Your task to perform on an android device: What is the recent news? Image 0: 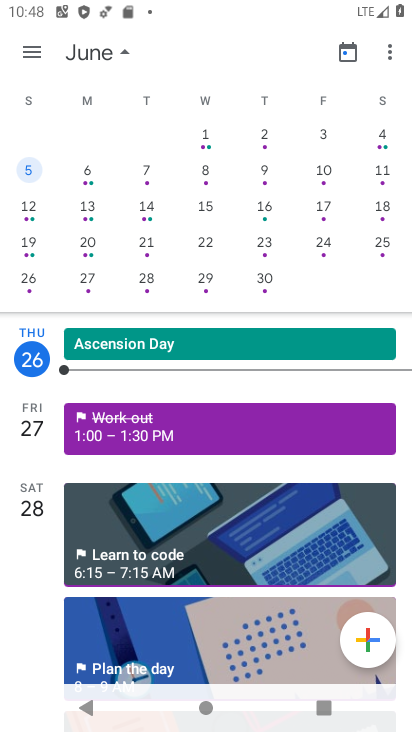
Step 0: press home button
Your task to perform on an android device: What is the recent news? Image 1: 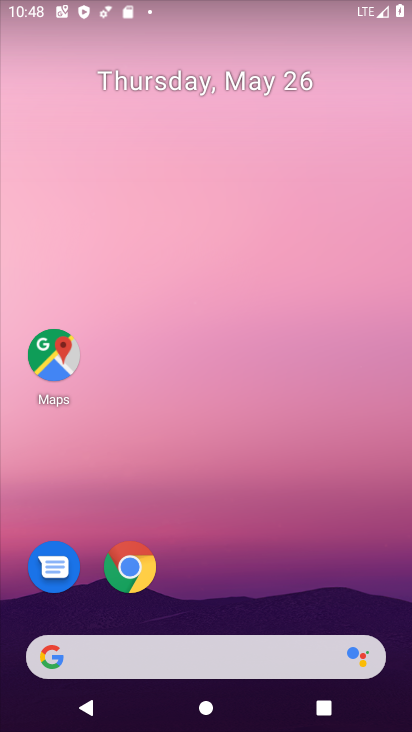
Step 1: click (204, 646)
Your task to perform on an android device: What is the recent news? Image 2: 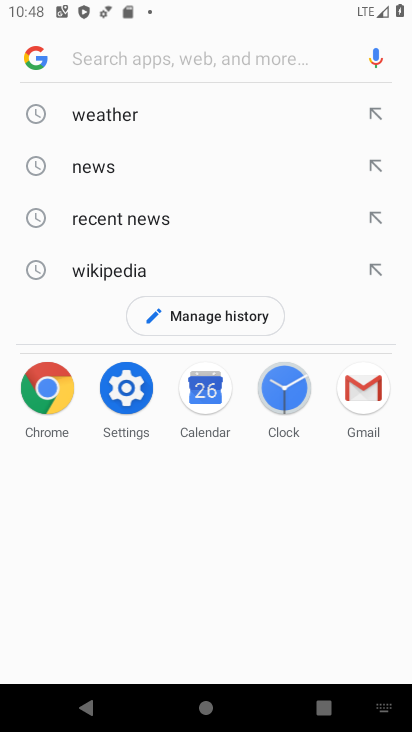
Step 2: click (170, 213)
Your task to perform on an android device: What is the recent news? Image 3: 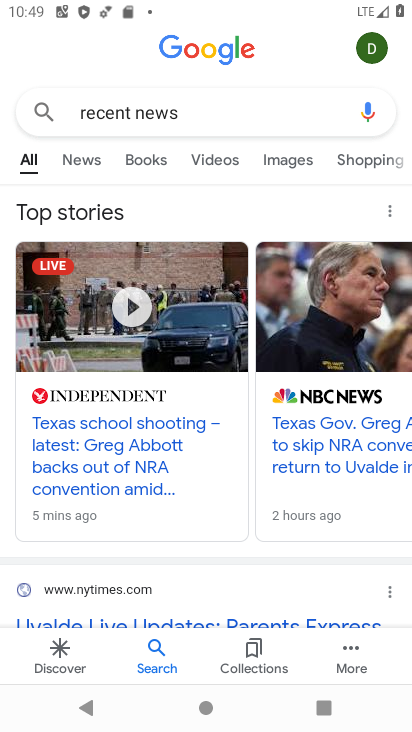
Step 3: task complete